Your task to perform on an android device: toggle pop-ups in chrome Image 0: 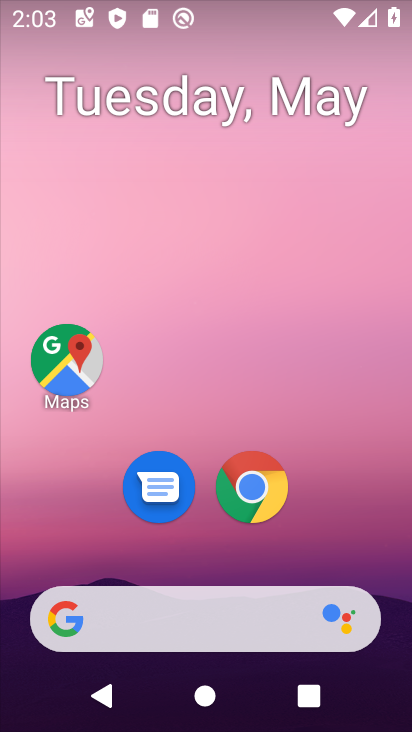
Step 0: click (243, 487)
Your task to perform on an android device: toggle pop-ups in chrome Image 1: 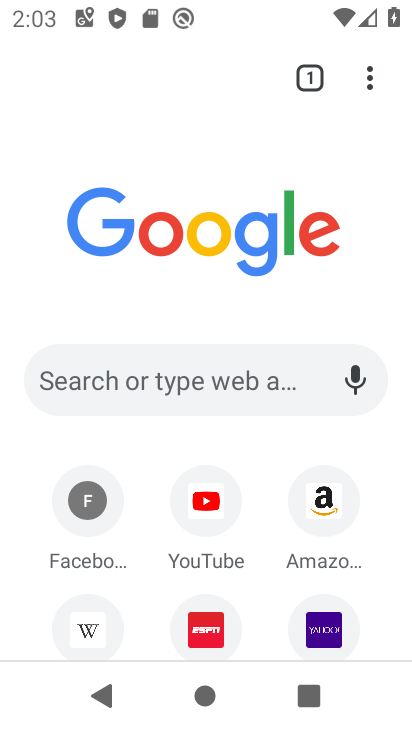
Step 1: click (363, 65)
Your task to perform on an android device: toggle pop-ups in chrome Image 2: 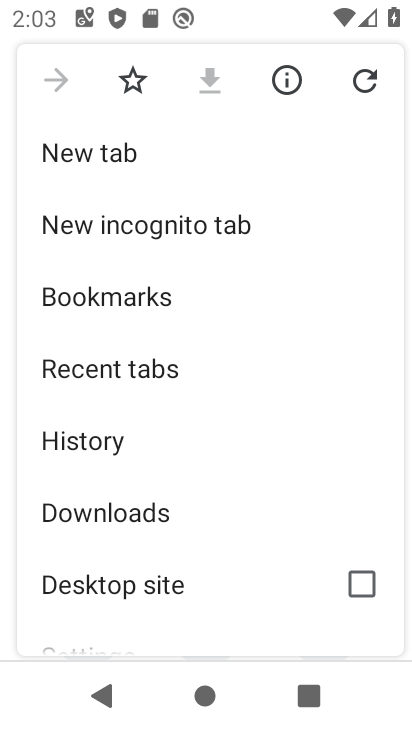
Step 2: drag from (145, 529) to (194, 232)
Your task to perform on an android device: toggle pop-ups in chrome Image 3: 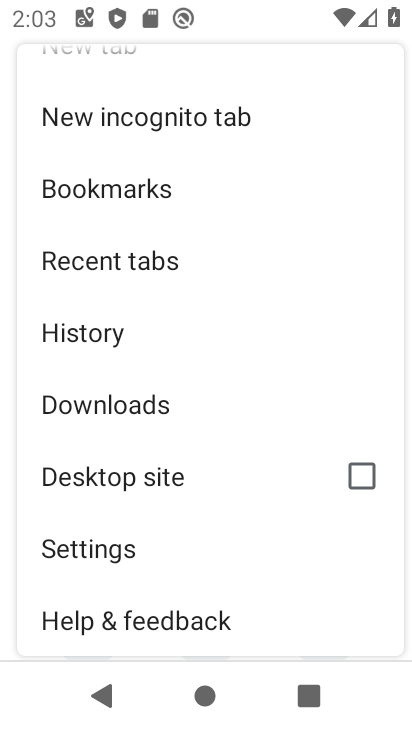
Step 3: click (141, 549)
Your task to perform on an android device: toggle pop-ups in chrome Image 4: 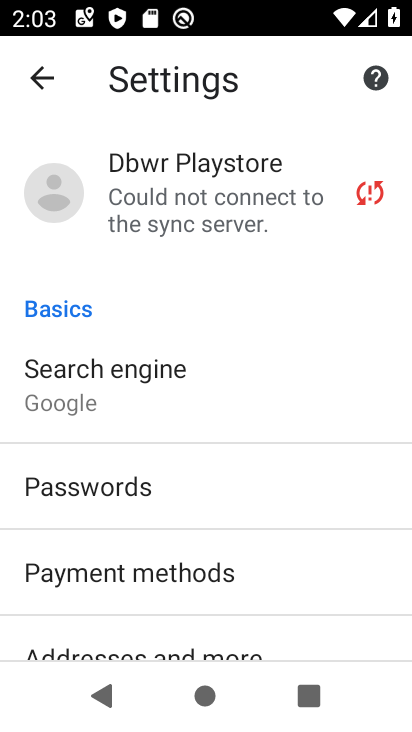
Step 4: drag from (158, 604) to (178, 233)
Your task to perform on an android device: toggle pop-ups in chrome Image 5: 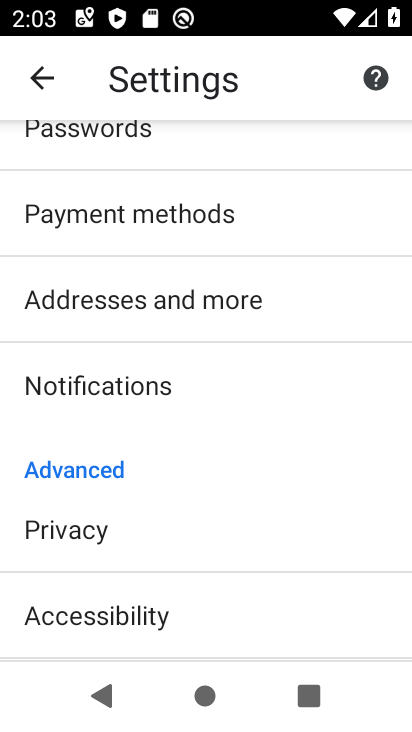
Step 5: drag from (177, 546) to (206, 236)
Your task to perform on an android device: toggle pop-ups in chrome Image 6: 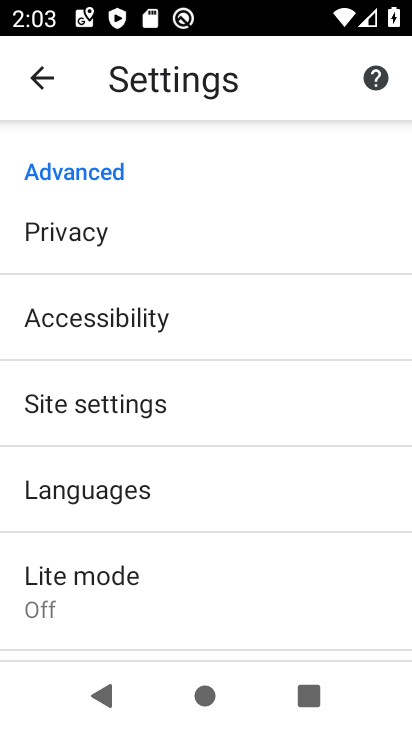
Step 6: click (182, 406)
Your task to perform on an android device: toggle pop-ups in chrome Image 7: 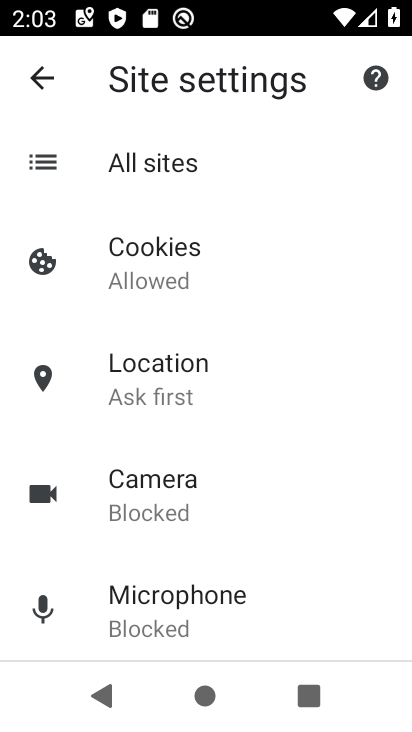
Step 7: drag from (205, 555) to (249, 179)
Your task to perform on an android device: toggle pop-ups in chrome Image 8: 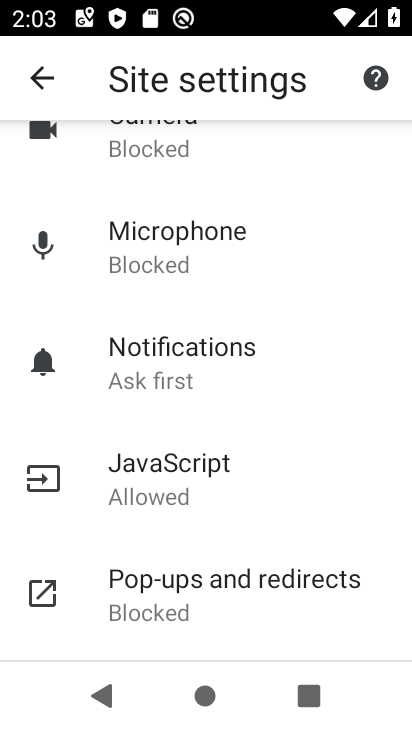
Step 8: click (217, 576)
Your task to perform on an android device: toggle pop-ups in chrome Image 9: 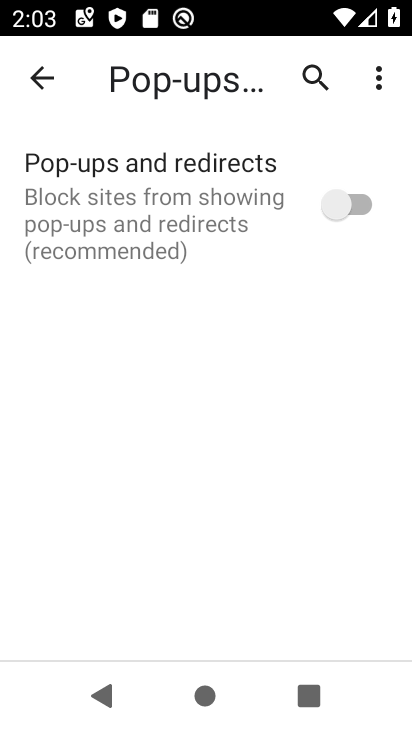
Step 9: click (341, 220)
Your task to perform on an android device: toggle pop-ups in chrome Image 10: 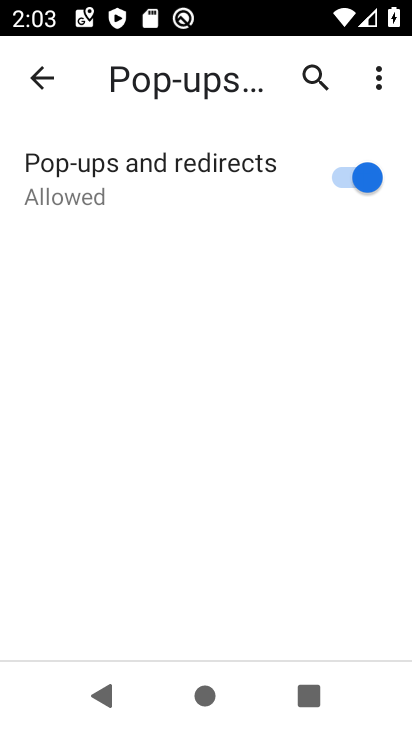
Step 10: task complete